Your task to perform on an android device: change the upload size in google photos Image 0: 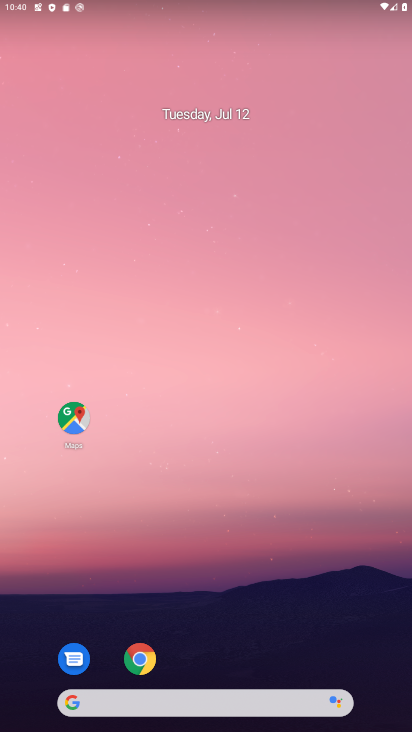
Step 0: drag from (376, 643) to (381, 237)
Your task to perform on an android device: change the upload size in google photos Image 1: 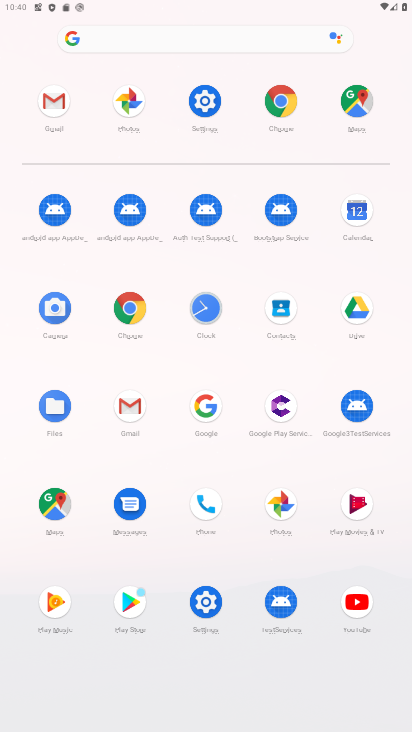
Step 1: click (288, 505)
Your task to perform on an android device: change the upload size in google photos Image 2: 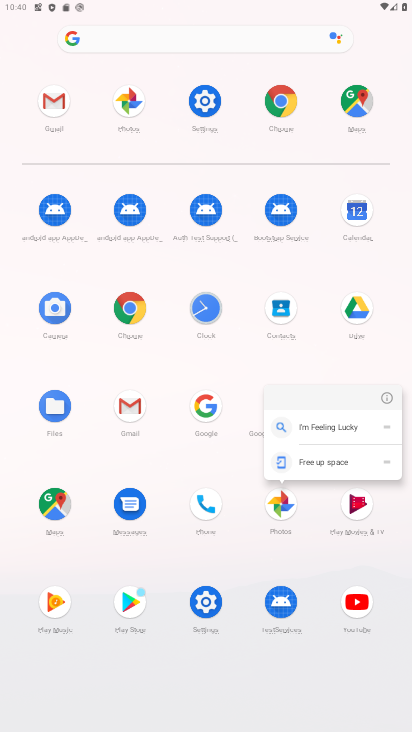
Step 2: click (285, 504)
Your task to perform on an android device: change the upload size in google photos Image 3: 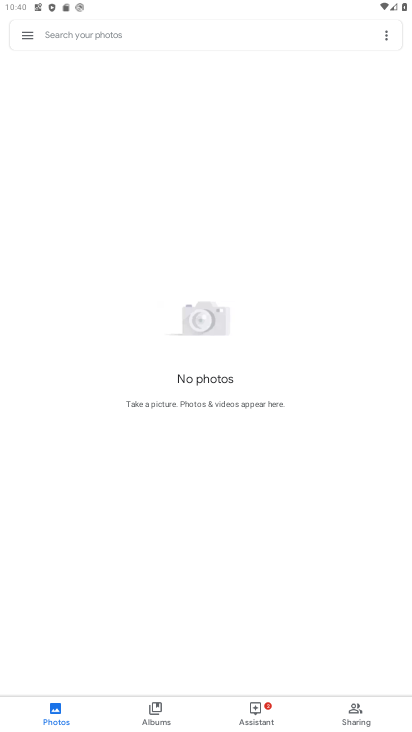
Step 3: click (31, 36)
Your task to perform on an android device: change the upload size in google photos Image 4: 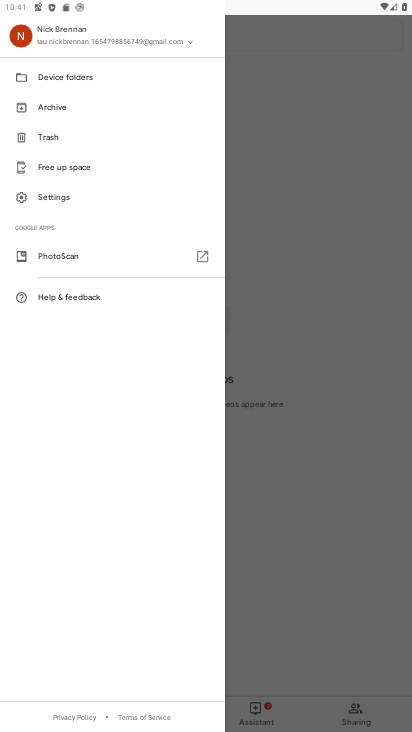
Step 4: click (56, 195)
Your task to perform on an android device: change the upload size in google photos Image 5: 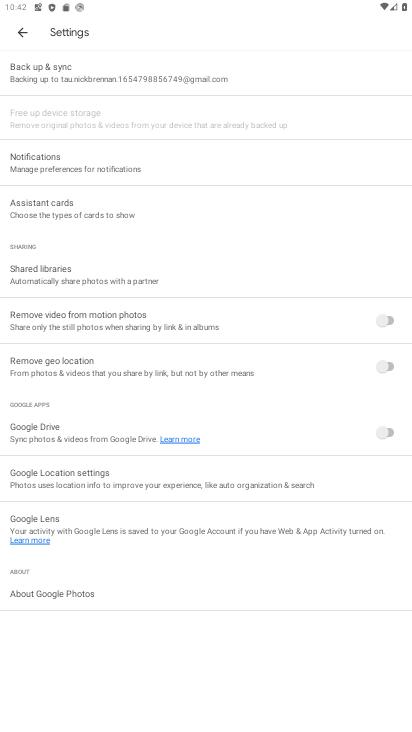
Step 5: click (38, 60)
Your task to perform on an android device: change the upload size in google photos Image 6: 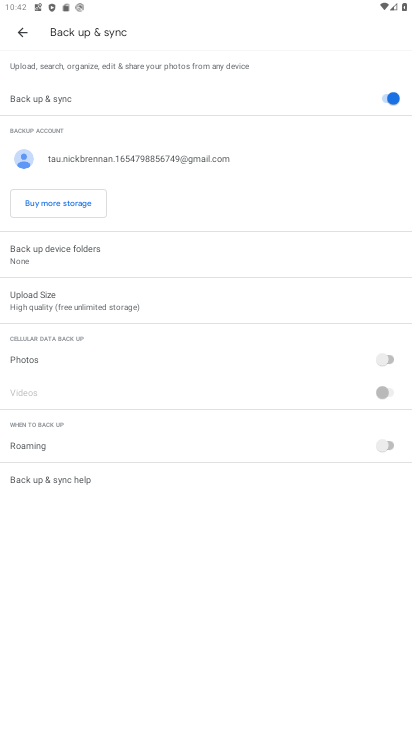
Step 6: click (39, 295)
Your task to perform on an android device: change the upload size in google photos Image 7: 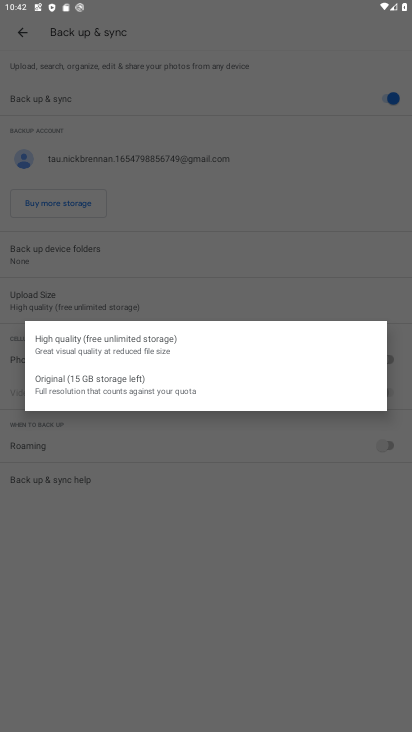
Step 7: click (59, 374)
Your task to perform on an android device: change the upload size in google photos Image 8: 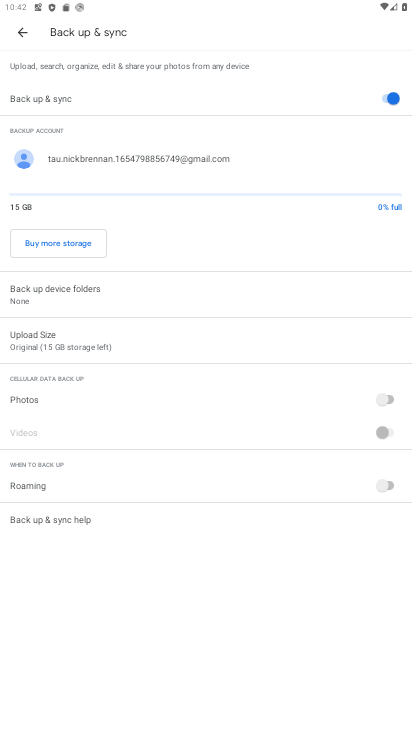
Step 8: task complete